Your task to perform on an android device: Do I have any events today? Image 0: 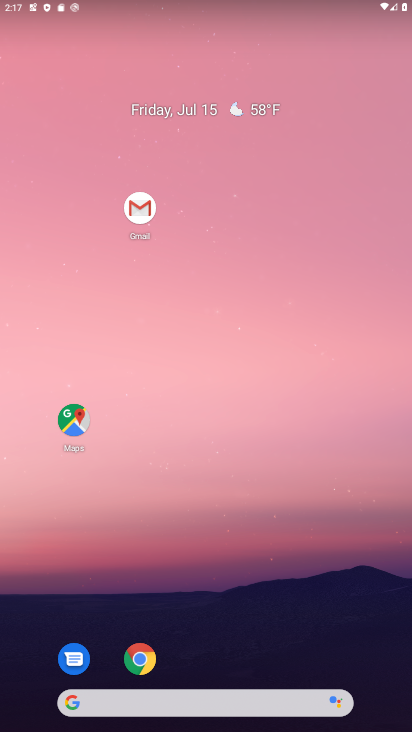
Step 0: drag from (195, 537) to (264, 161)
Your task to perform on an android device: Do I have any events today? Image 1: 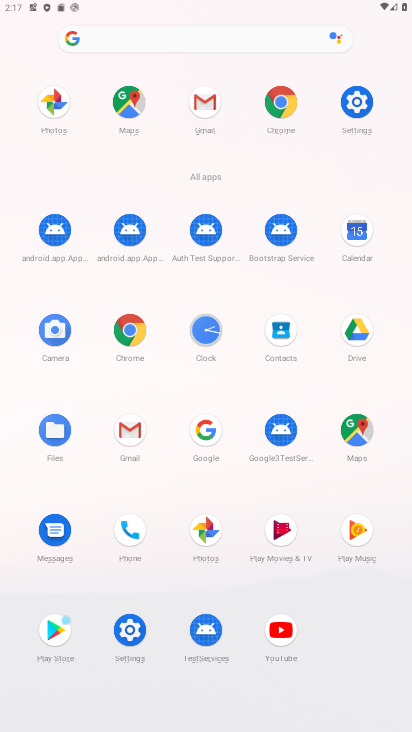
Step 1: drag from (358, 234) to (209, 222)
Your task to perform on an android device: Do I have any events today? Image 2: 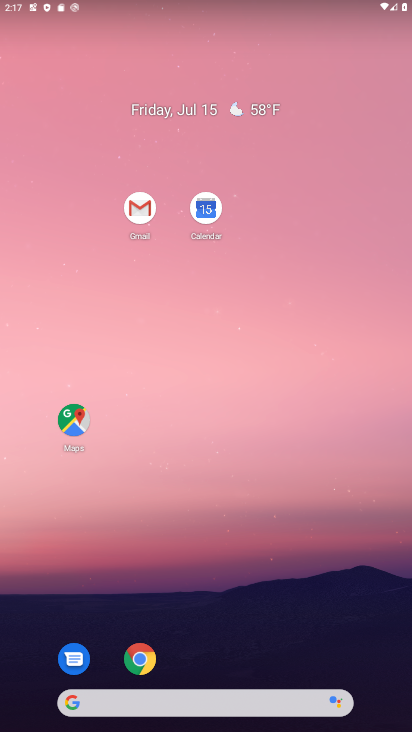
Step 2: click (206, 204)
Your task to perform on an android device: Do I have any events today? Image 3: 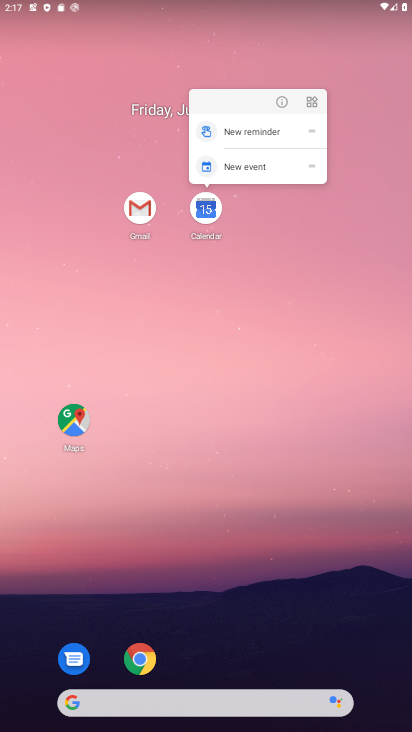
Step 3: click (209, 210)
Your task to perform on an android device: Do I have any events today? Image 4: 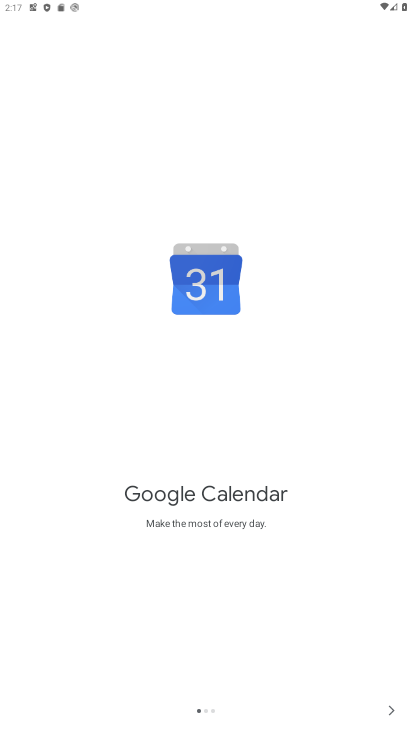
Step 4: click (394, 698)
Your task to perform on an android device: Do I have any events today? Image 5: 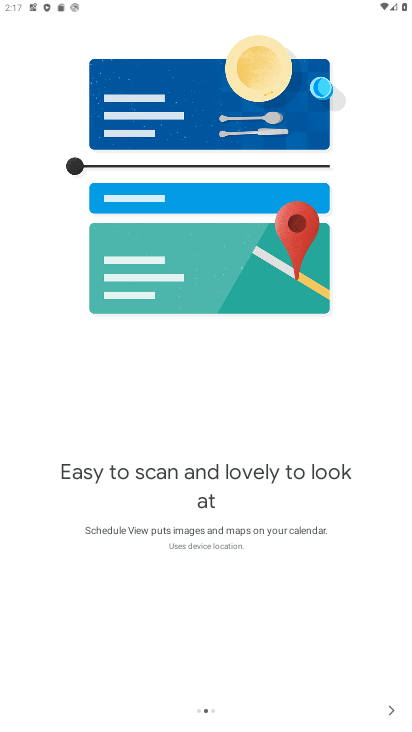
Step 5: click (386, 709)
Your task to perform on an android device: Do I have any events today? Image 6: 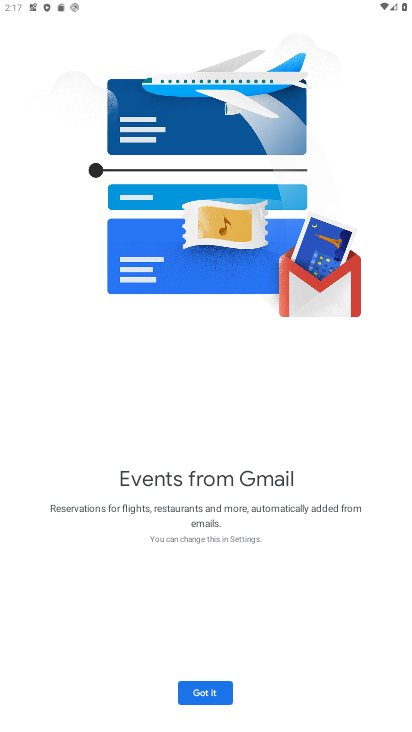
Step 6: click (207, 684)
Your task to perform on an android device: Do I have any events today? Image 7: 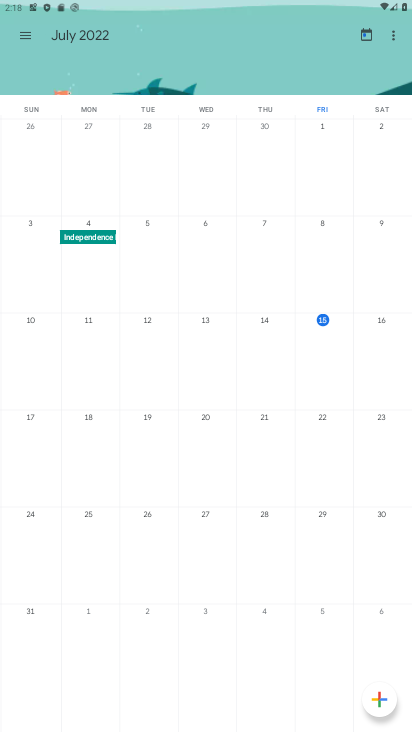
Step 7: click (312, 324)
Your task to perform on an android device: Do I have any events today? Image 8: 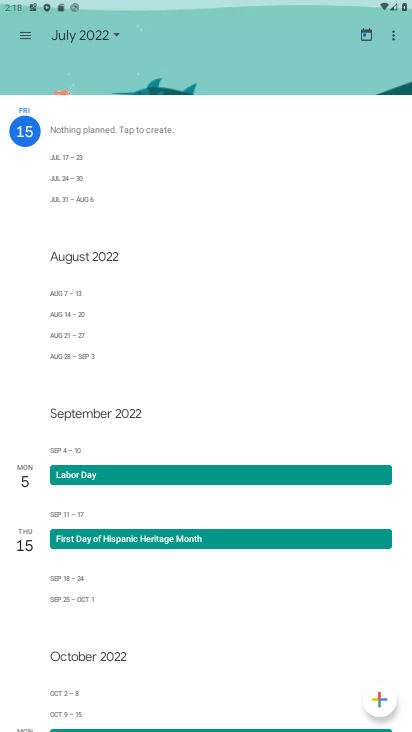
Step 8: task complete